Your task to perform on an android device: Clear the cart on newegg. Add dell xps to the cart on newegg Image 0: 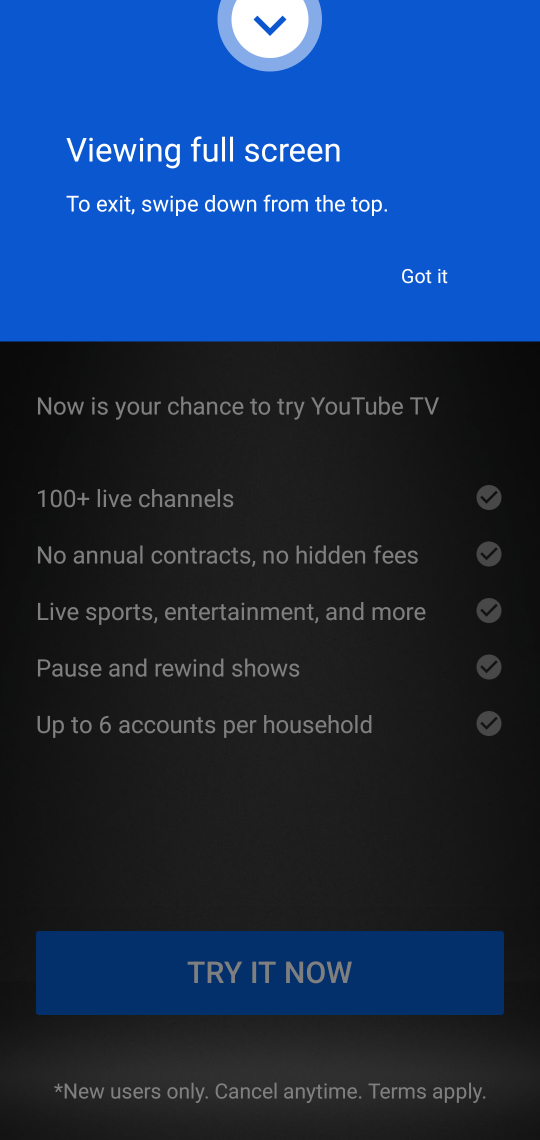
Step 0: press home button
Your task to perform on an android device: Clear the cart on newegg. Add dell xps to the cart on newegg Image 1: 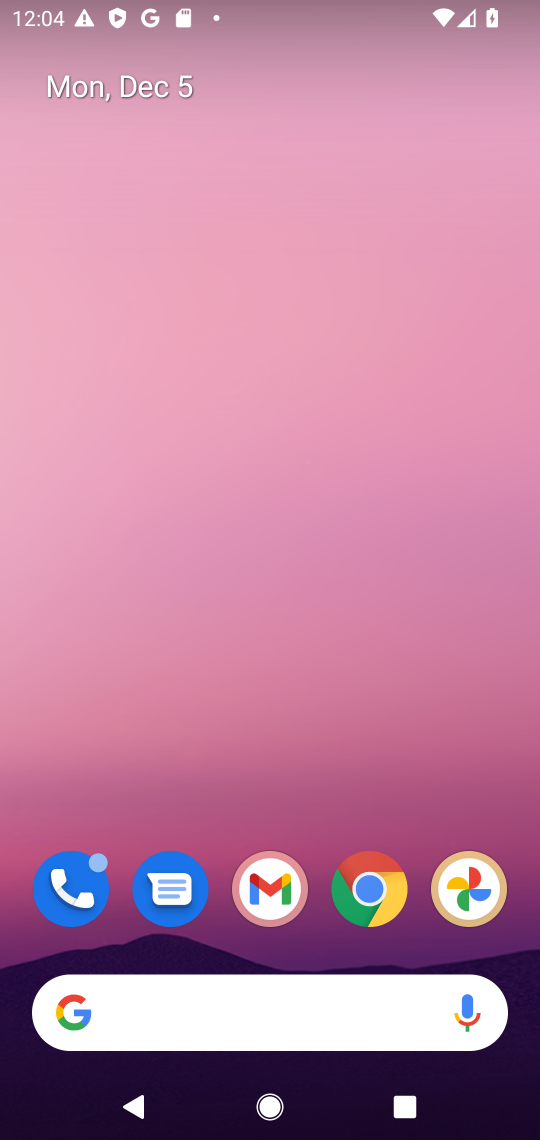
Step 1: click (367, 887)
Your task to perform on an android device: Clear the cart on newegg. Add dell xps to the cart on newegg Image 2: 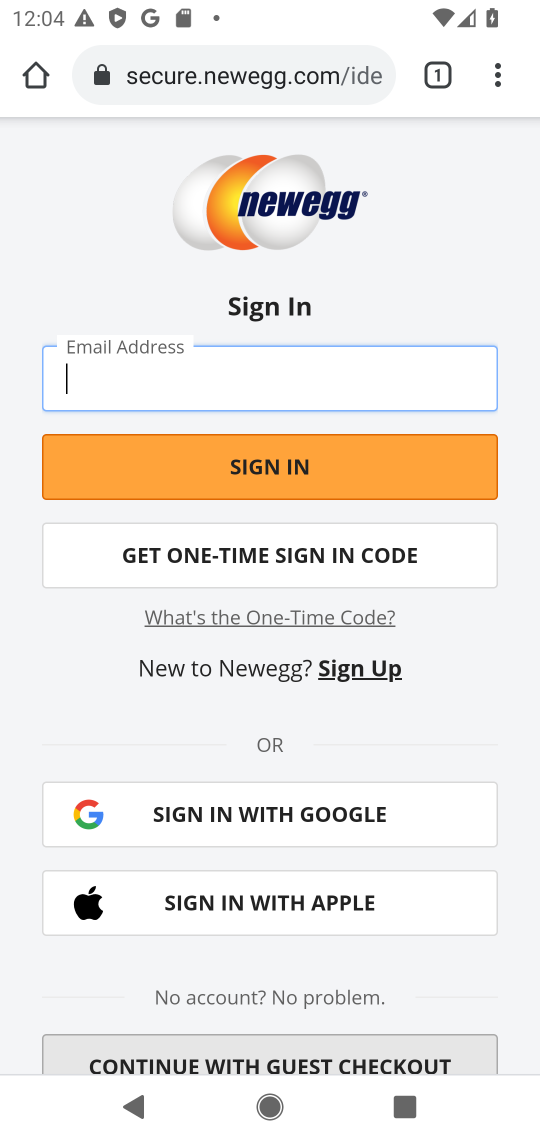
Step 2: click (268, 70)
Your task to perform on an android device: Clear the cart on newegg. Add dell xps to the cart on newegg Image 3: 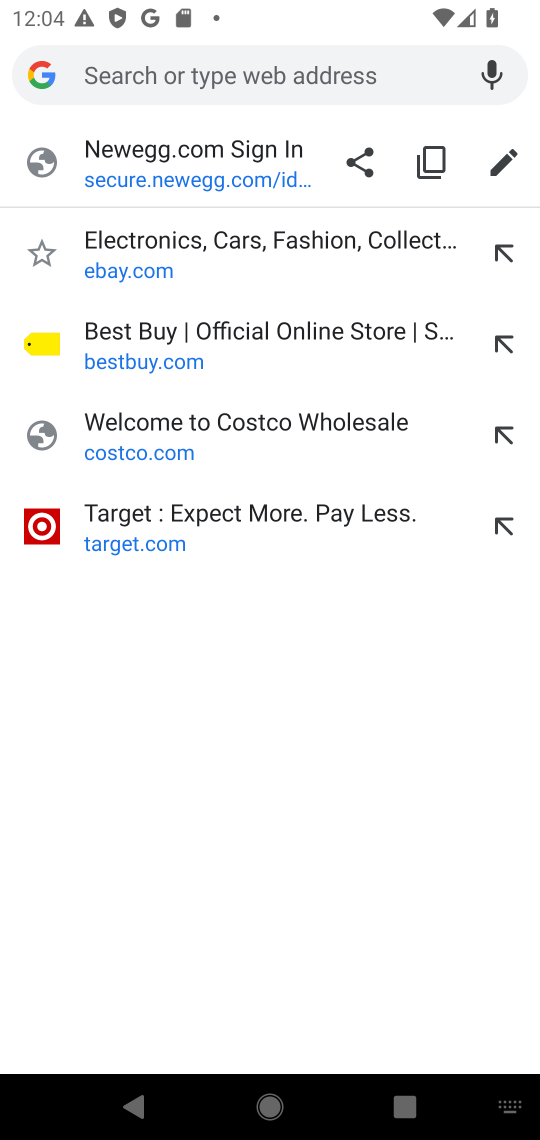
Step 3: click (202, 164)
Your task to perform on an android device: Clear the cart on newegg. Add dell xps to the cart on newegg Image 4: 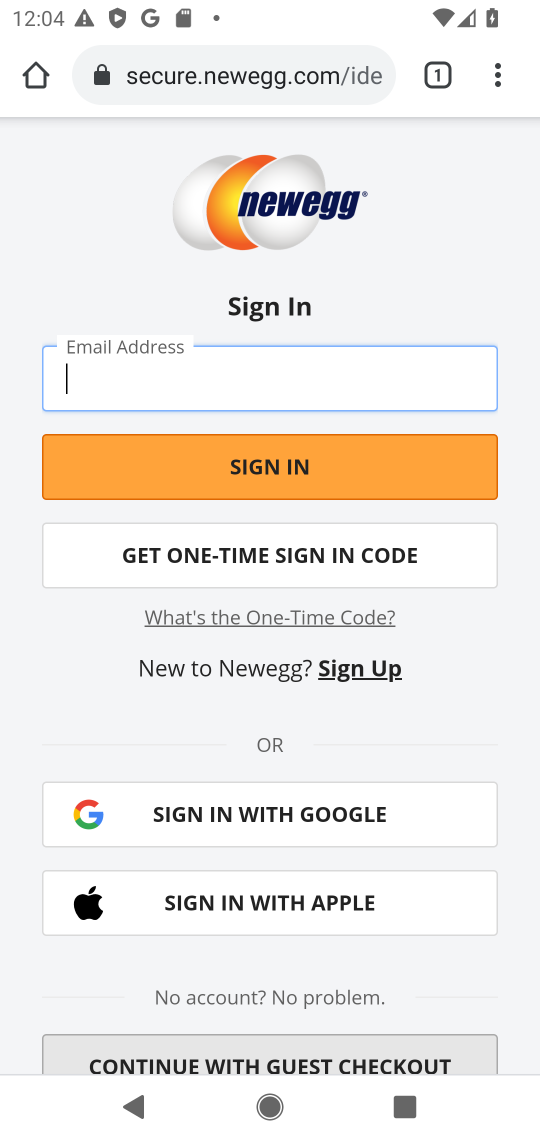
Step 4: press back button
Your task to perform on an android device: Clear the cart on newegg. Add dell xps to the cart on newegg Image 5: 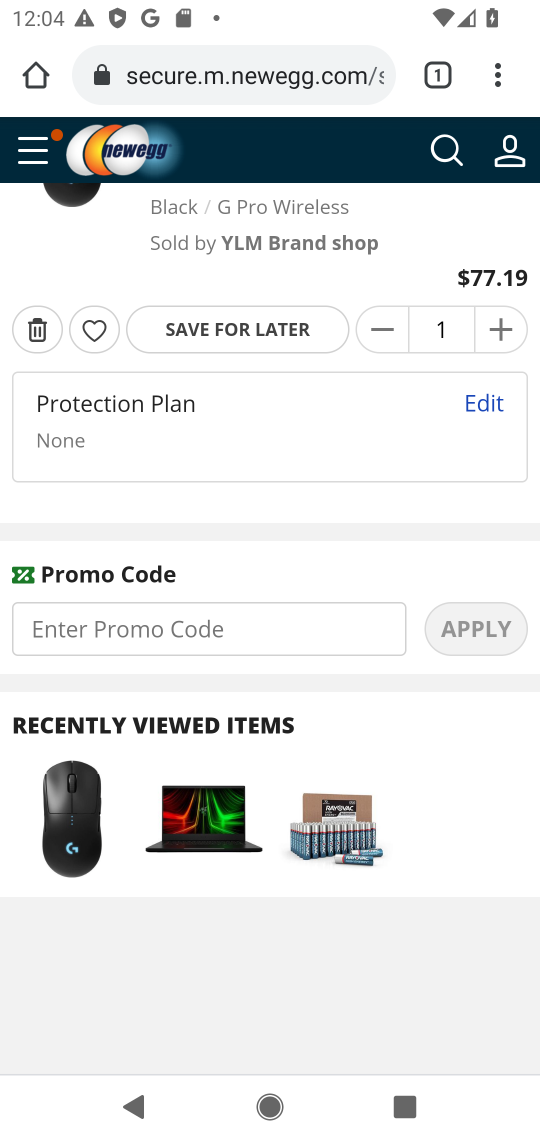
Step 5: click (34, 334)
Your task to perform on an android device: Clear the cart on newegg. Add dell xps to the cart on newegg Image 6: 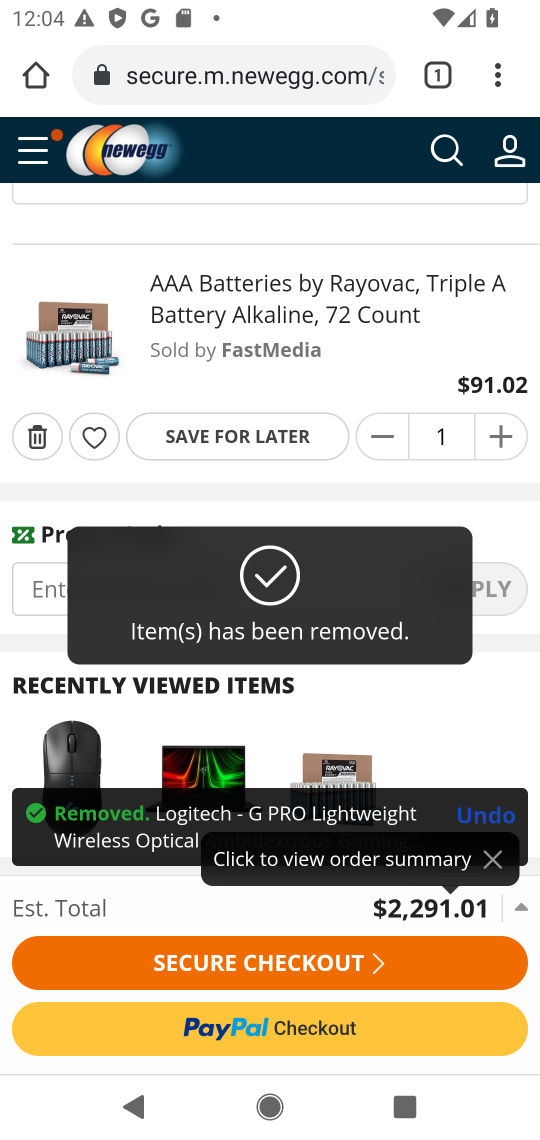
Step 6: click (41, 436)
Your task to perform on an android device: Clear the cart on newegg. Add dell xps to the cart on newegg Image 7: 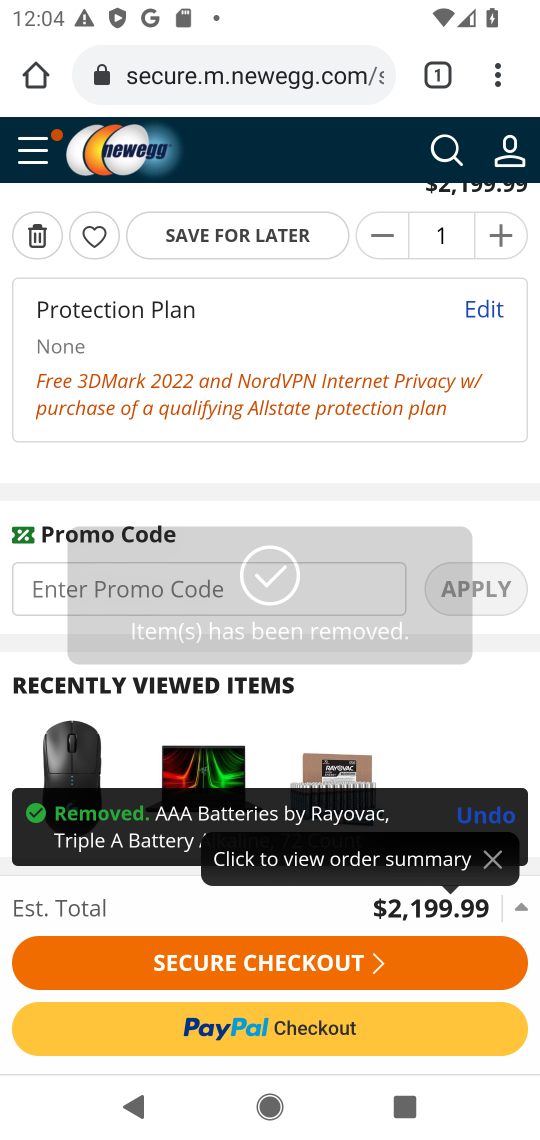
Step 7: click (39, 234)
Your task to perform on an android device: Clear the cart on newegg. Add dell xps to the cart on newegg Image 8: 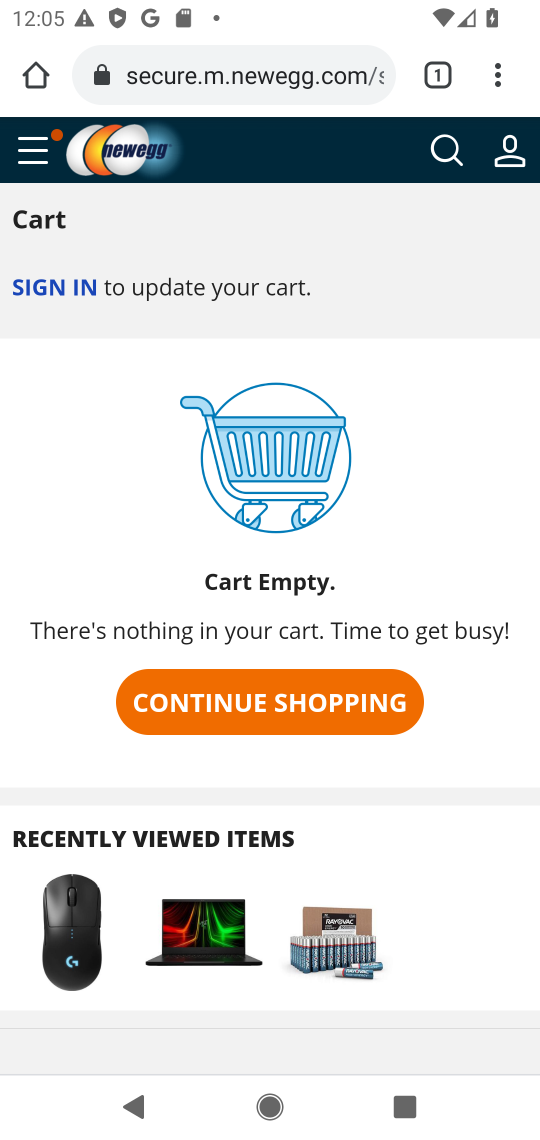
Step 8: click (446, 145)
Your task to perform on an android device: Clear the cart on newegg. Add dell xps to the cart on newegg Image 9: 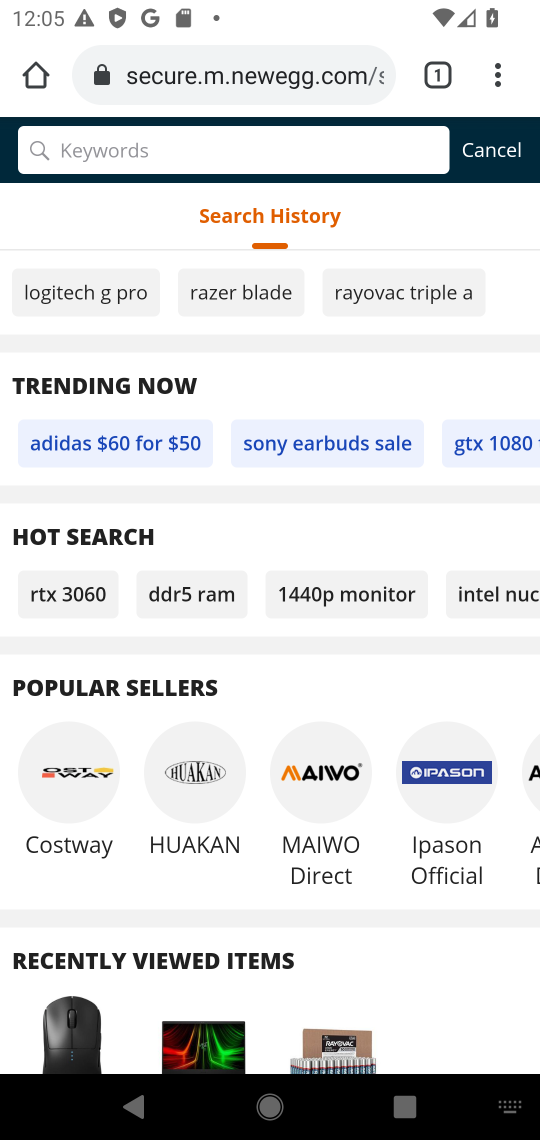
Step 9: type "dell xps "
Your task to perform on an android device: Clear the cart on newegg. Add dell xps to the cart on newegg Image 10: 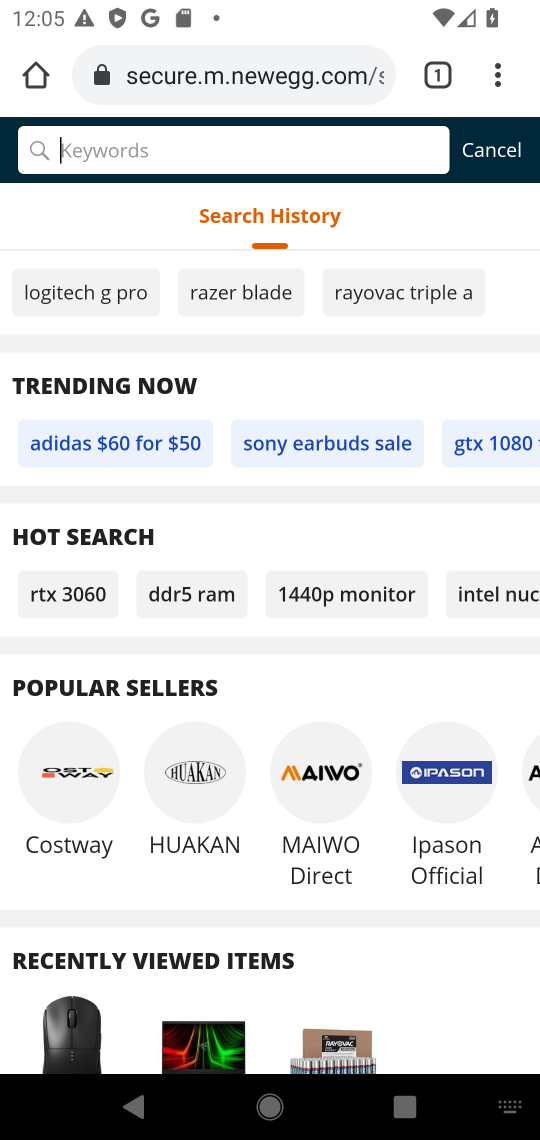
Step 10: press enter
Your task to perform on an android device: Clear the cart on newegg. Add dell xps to the cart on newegg Image 11: 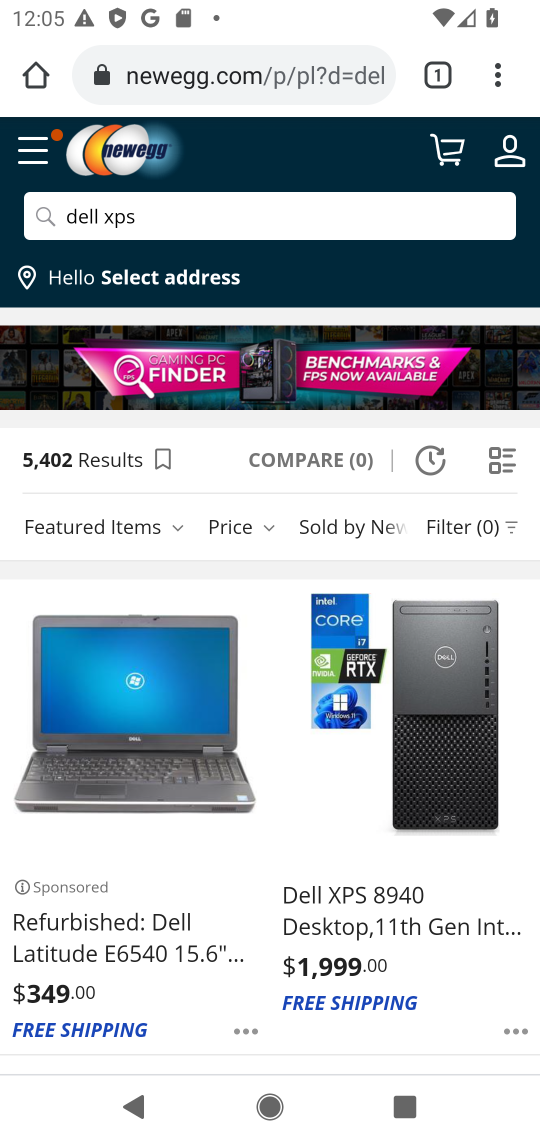
Step 11: drag from (443, 692) to (503, 314)
Your task to perform on an android device: Clear the cart on newegg. Add dell xps to the cart on newegg Image 12: 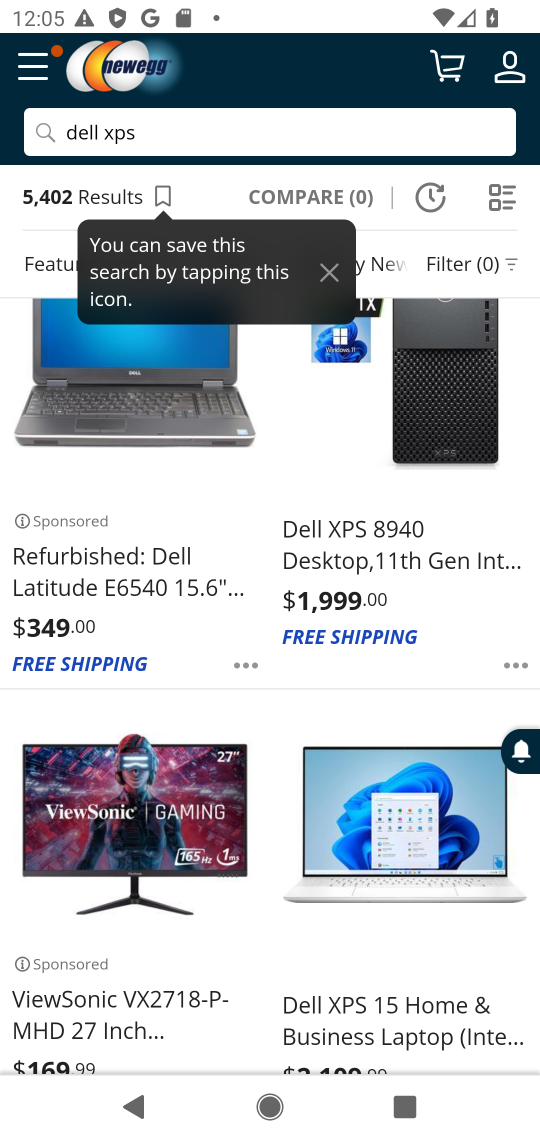
Step 12: drag from (385, 829) to (445, 387)
Your task to perform on an android device: Clear the cart on newegg. Add dell xps to the cart on newegg Image 13: 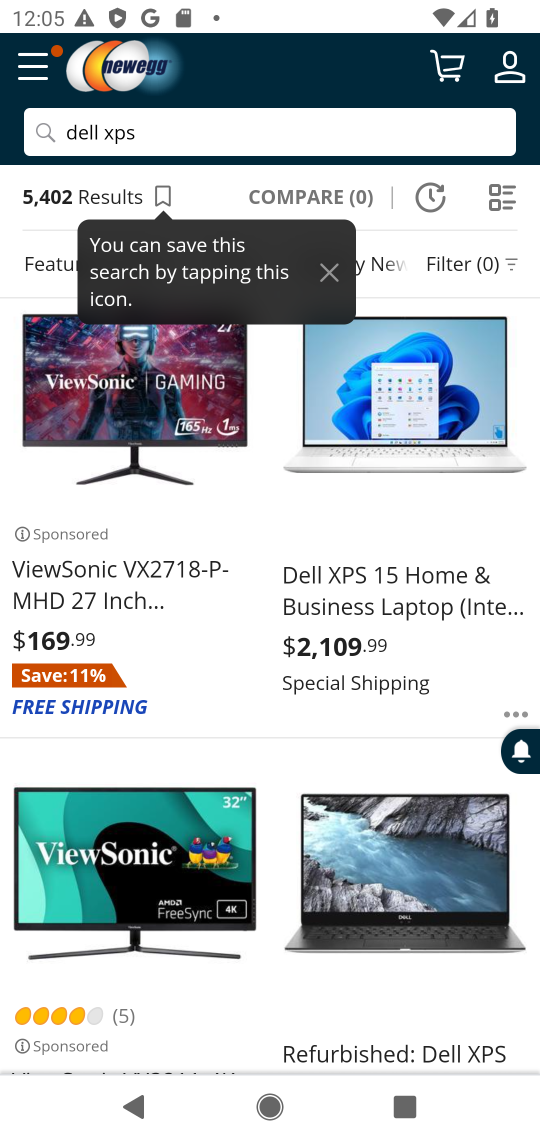
Step 13: drag from (361, 717) to (376, 430)
Your task to perform on an android device: Clear the cart on newegg. Add dell xps to the cart on newegg Image 14: 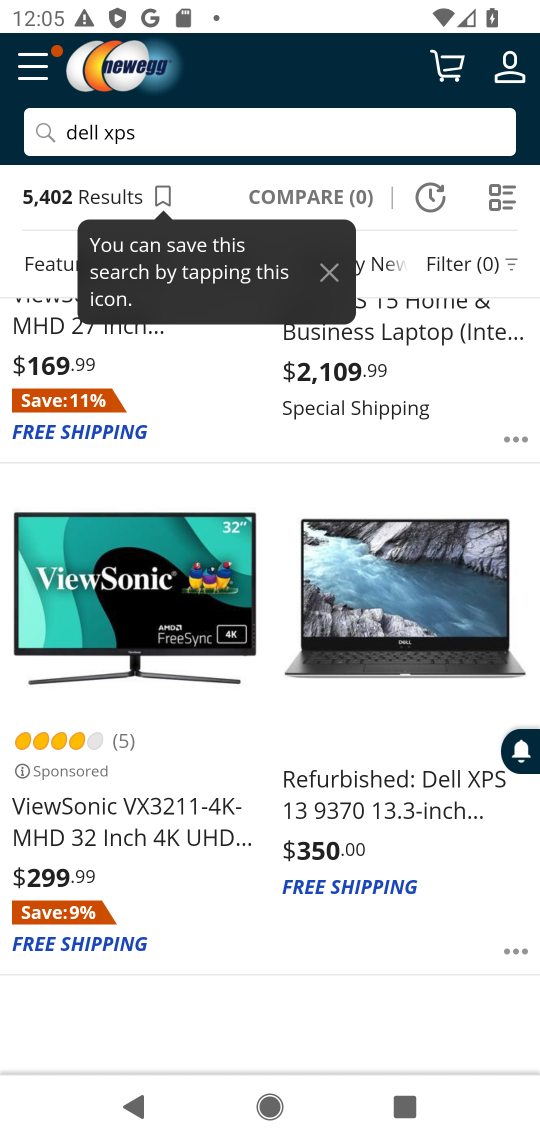
Step 14: drag from (220, 873) to (247, 483)
Your task to perform on an android device: Clear the cart on newegg. Add dell xps to the cart on newegg Image 15: 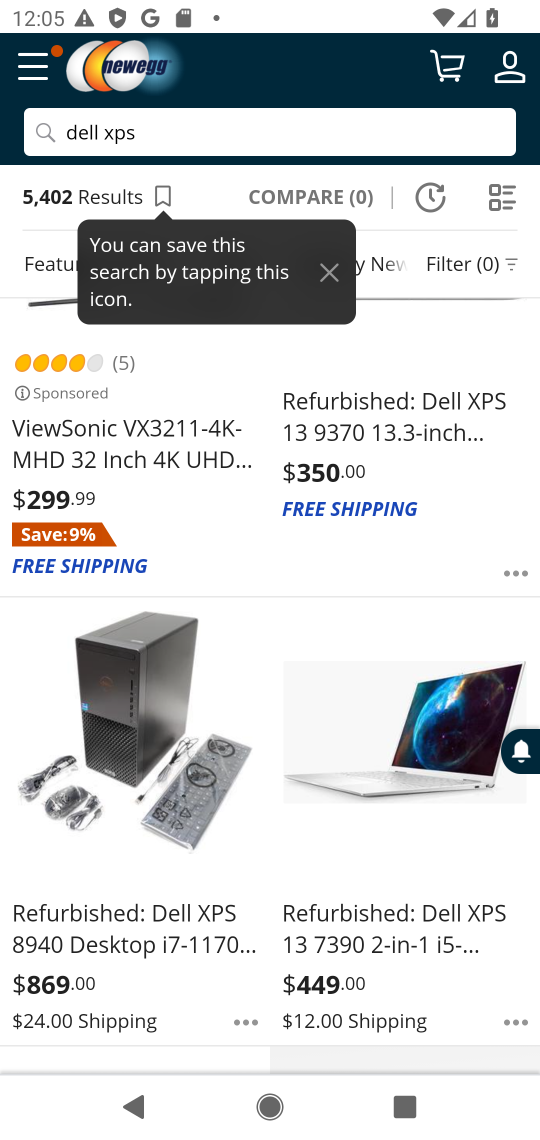
Step 15: drag from (304, 806) to (293, 457)
Your task to perform on an android device: Clear the cart on newegg. Add dell xps to the cart on newegg Image 16: 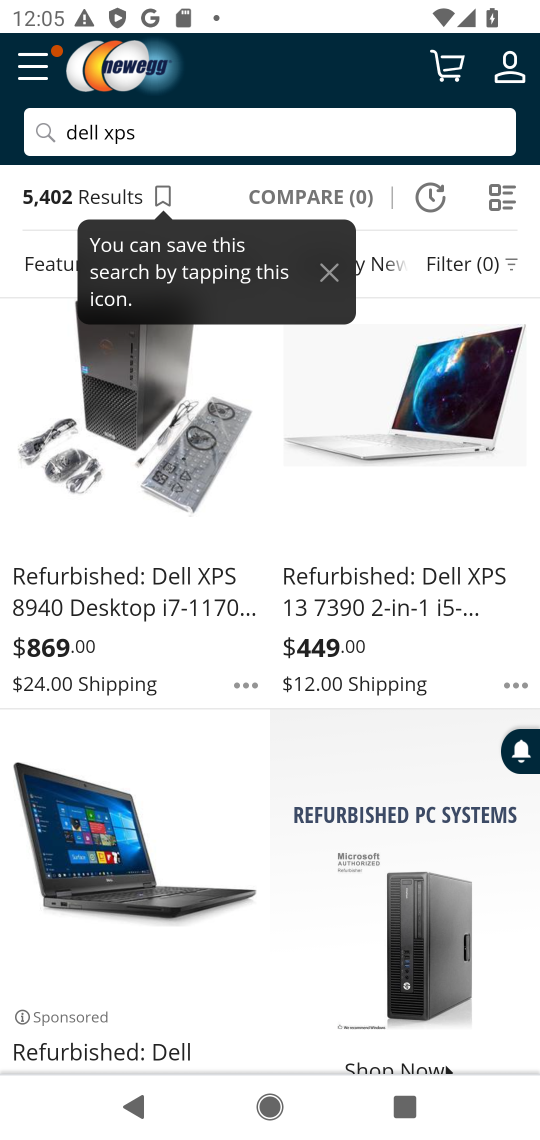
Step 16: drag from (222, 889) to (265, 503)
Your task to perform on an android device: Clear the cart on newegg. Add dell xps to the cart on newegg Image 17: 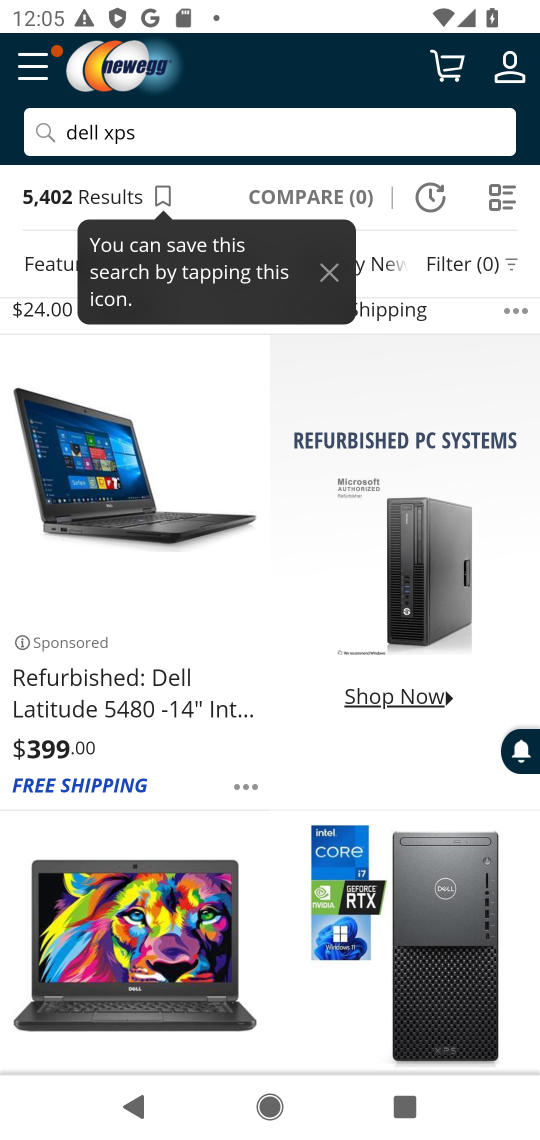
Step 17: drag from (284, 779) to (382, 389)
Your task to perform on an android device: Clear the cart on newegg. Add dell xps to the cart on newegg Image 18: 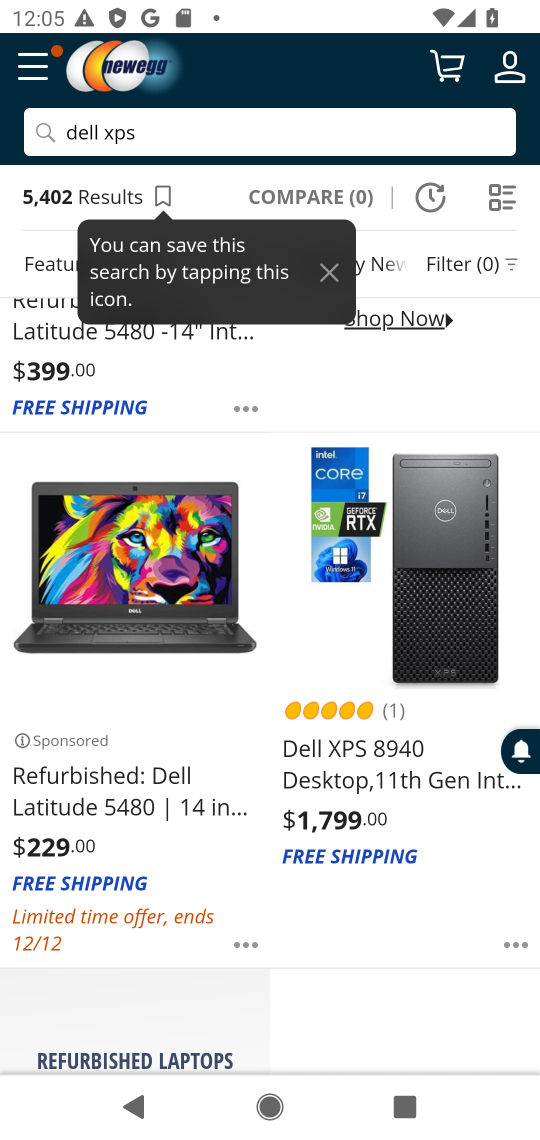
Step 18: click (474, 587)
Your task to perform on an android device: Clear the cart on newegg. Add dell xps to the cart on newegg Image 19: 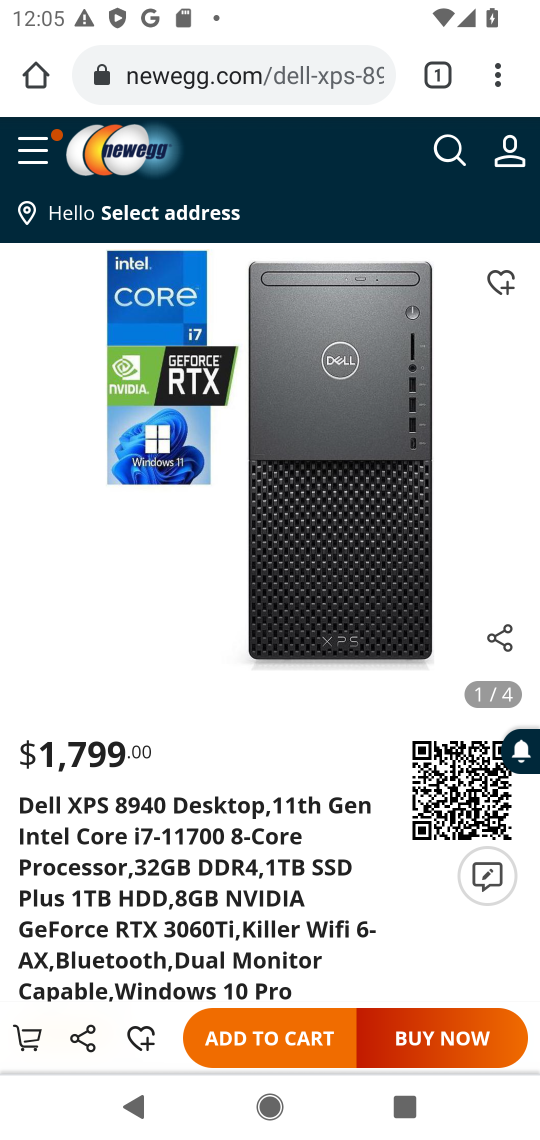
Step 19: click (289, 1043)
Your task to perform on an android device: Clear the cart on newegg. Add dell xps to the cart on newegg Image 20: 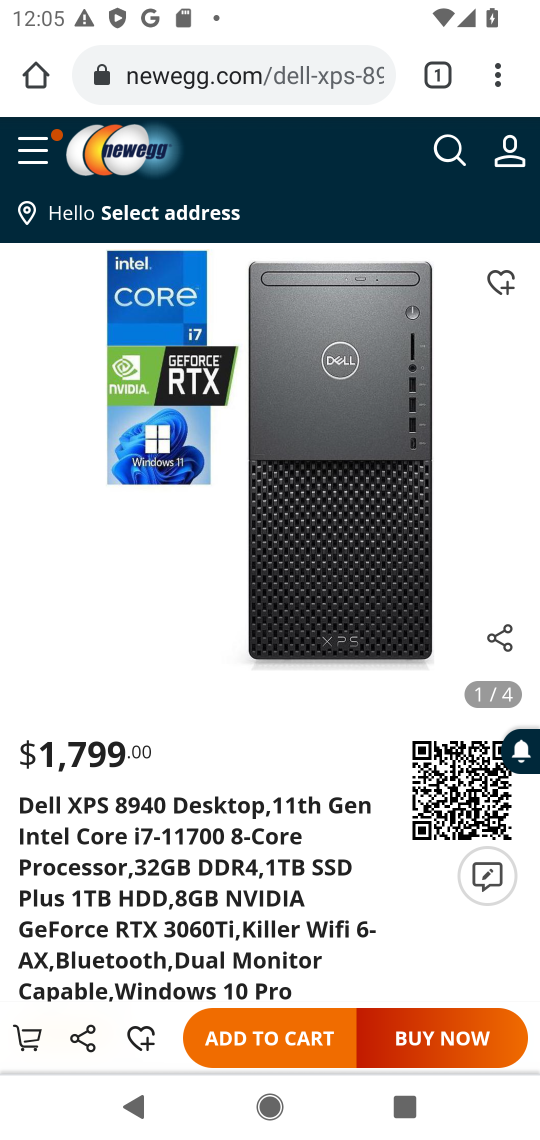
Step 20: click (289, 1043)
Your task to perform on an android device: Clear the cart on newegg. Add dell xps to the cart on newegg Image 21: 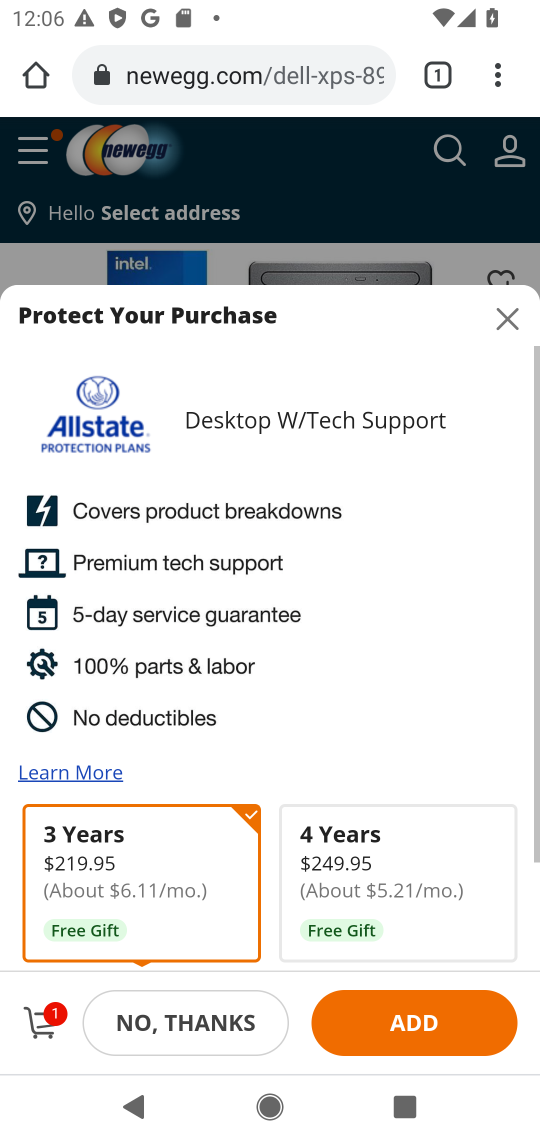
Step 21: task complete